Your task to perform on an android device: add a contact Image 0: 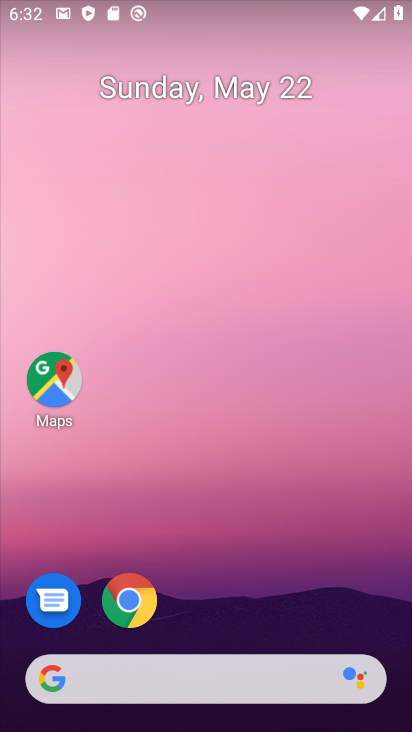
Step 0: drag from (325, 478) to (295, 158)
Your task to perform on an android device: add a contact Image 1: 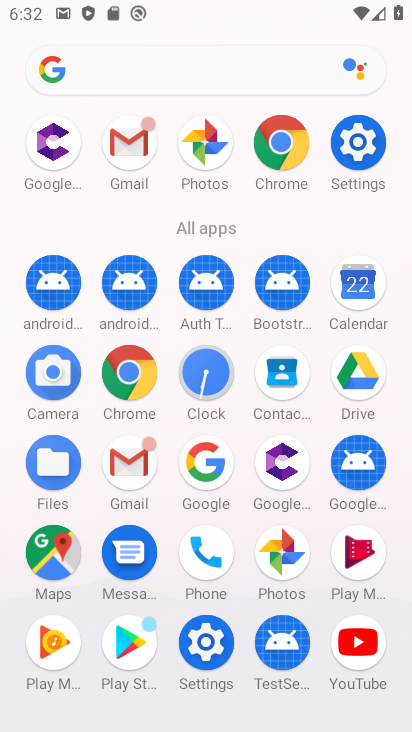
Step 1: click (282, 384)
Your task to perform on an android device: add a contact Image 2: 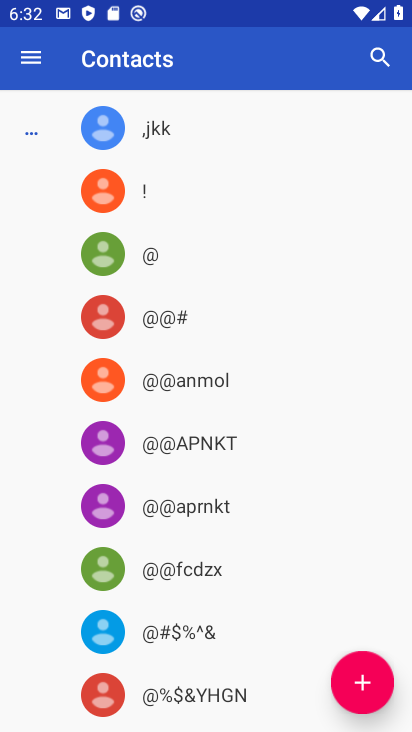
Step 2: click (370, 683)
Your task to perform on an android device: add a contact Image 3: 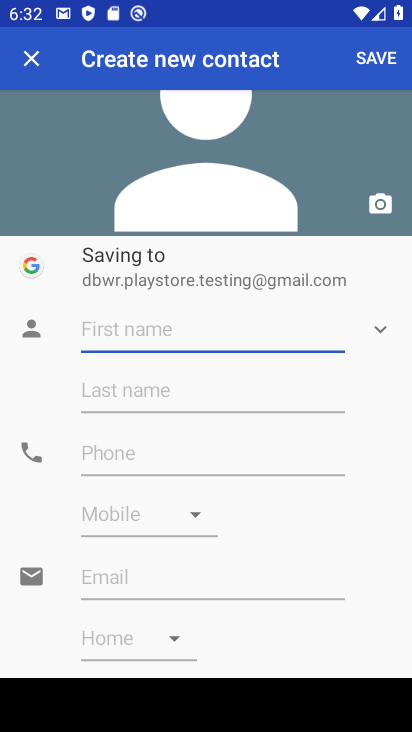
Step 3: type "veena"
Your task to perform on an android device: add a contact Image 4: 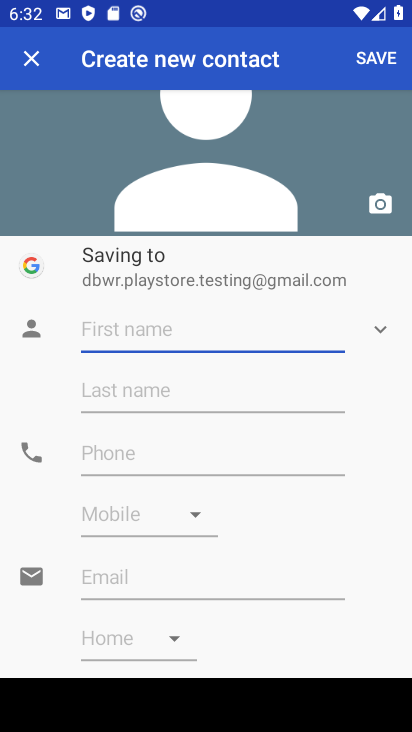
Step 4: click (365, 56)
Your task to perform on an android device: add a contact Image 5: 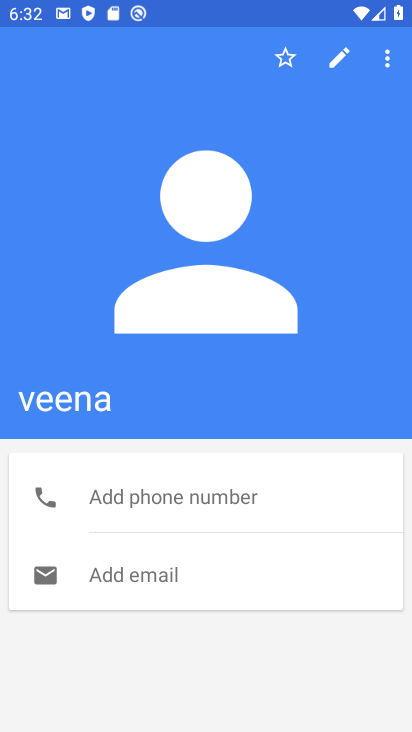
Step 5: task complete